Your task to perform on an android device: Go to Amazon Image 0: 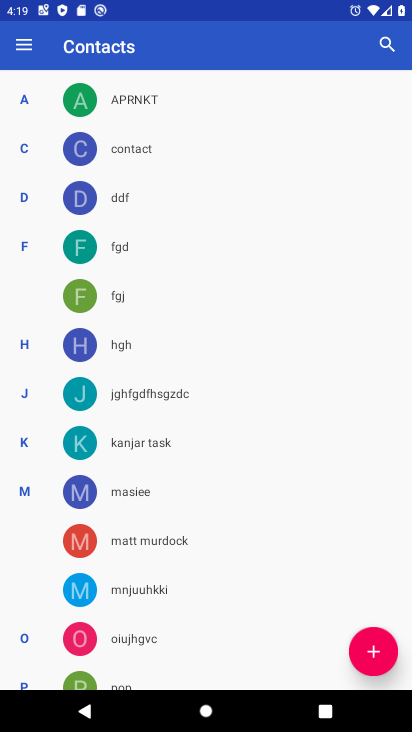
Step 0: press home button
Your task to perform on an android device: Go to Amazon Image 1: 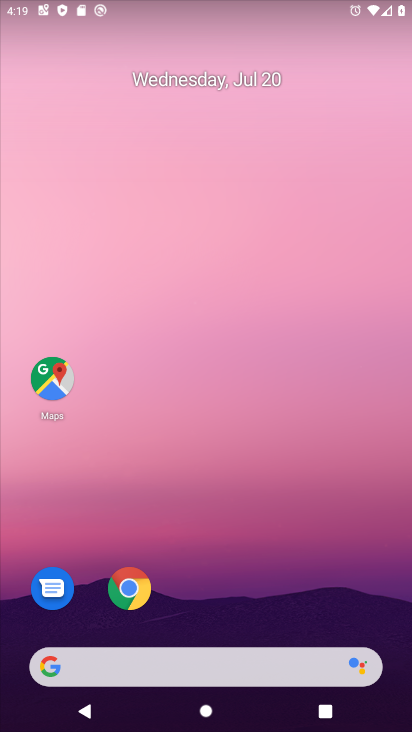
Step 1: drag from (257, 567) to (266, 103)
Your task to perform on an android device: Go to Amazon Image 2: 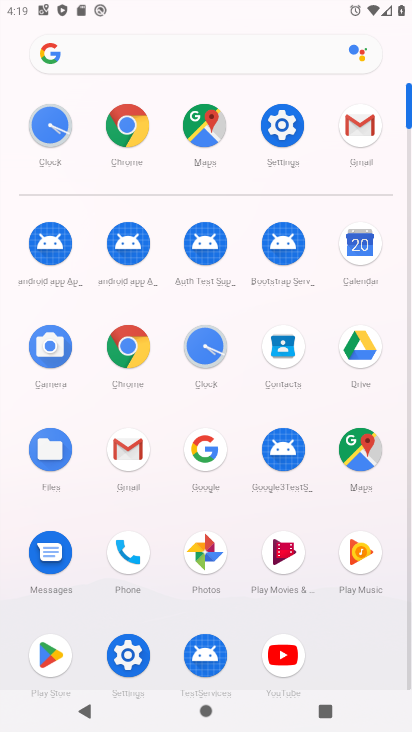
Step 2: click (124, 120)
Your task to perform on an android device: Go to Amazon Image 3: 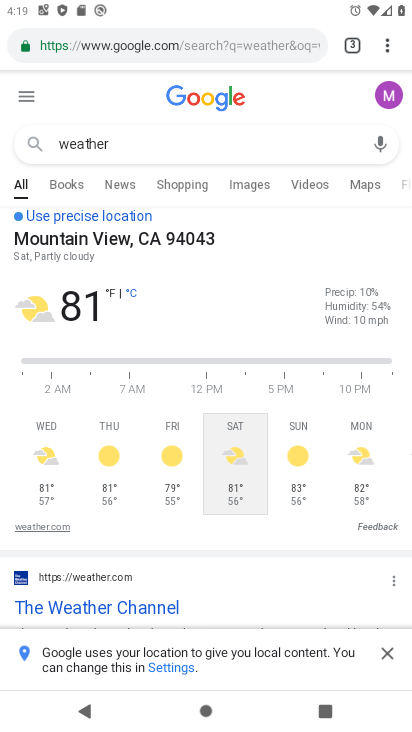
Step 3: click (166, 44)
Your task to perform on an android device: Go to Amazon Image 4: 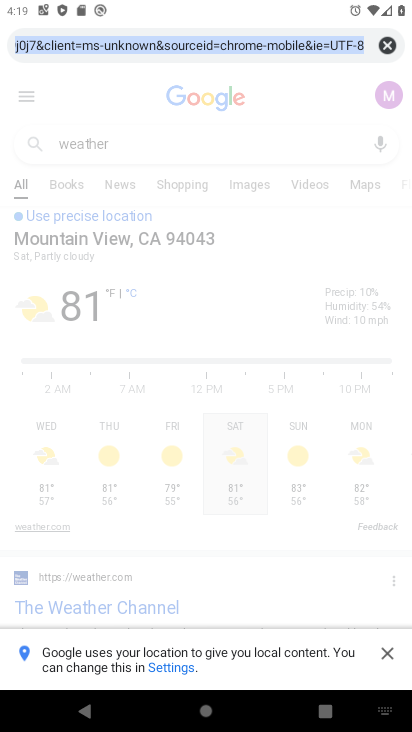
Step 4: type "amazon"
Your task to perform on an android device: Go to Amazon Image 5: 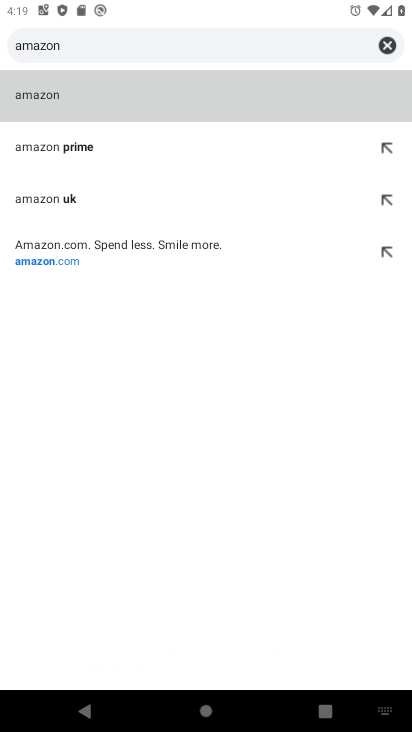
Step 5: click (61, 96)
Your task to perform on an android device: Go to Amazon Image 6: 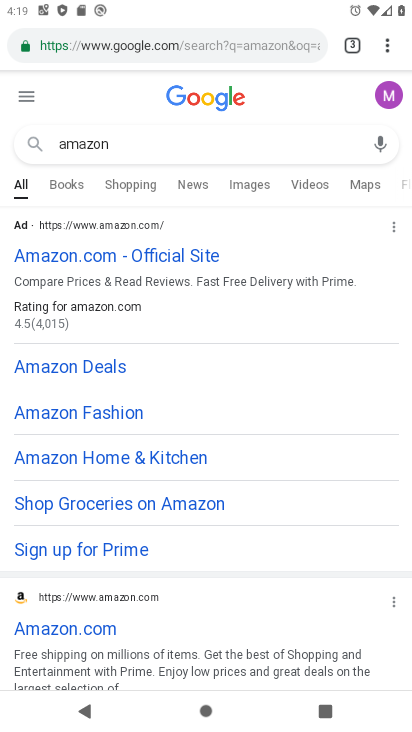
Step 6: click (97, 621)
Your task to perform on an android device: Go to Amazon Image 7: 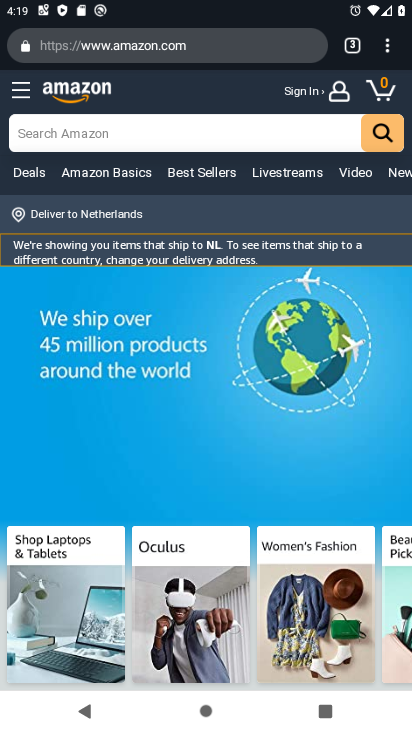
Step 7: task complete